Your task to perform on an android device: Open the calendar and show me this week's events? Image 0: 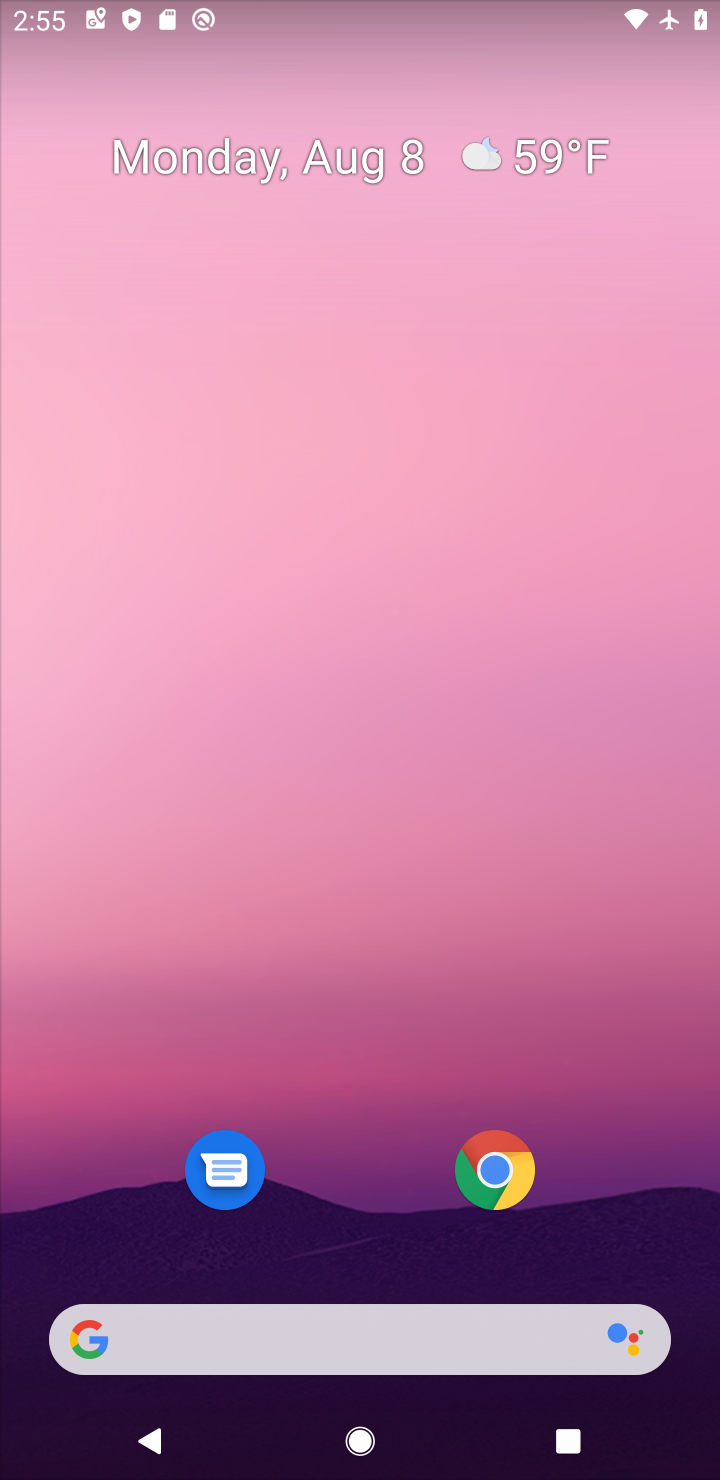
Step 0: drag from (384, 1100) to (384, 250)
Your task to perform on an android device: Open the calendar and show me this week's events? Image 1: 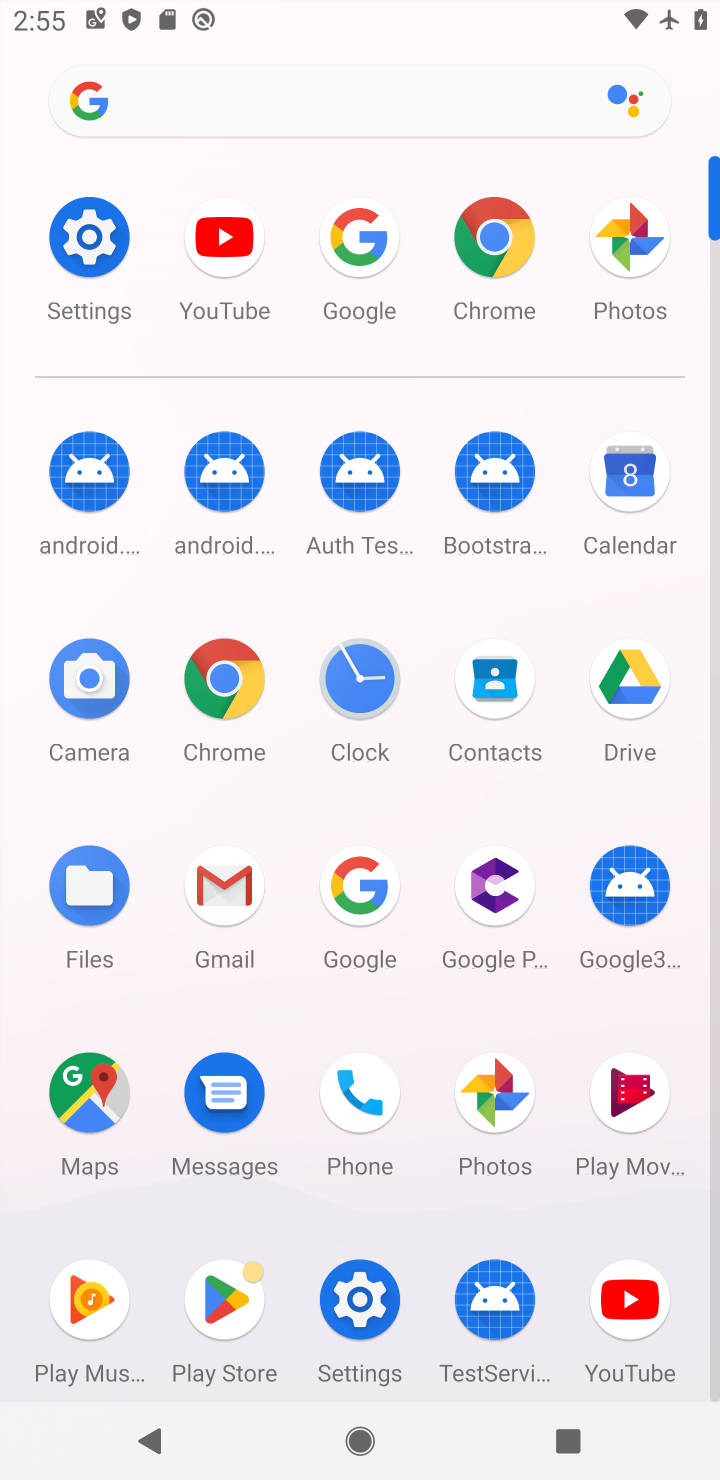
Step 1: click (609, 501)
Your task to perform on an android device: Open the calendar and show me this week's events? Image 2: 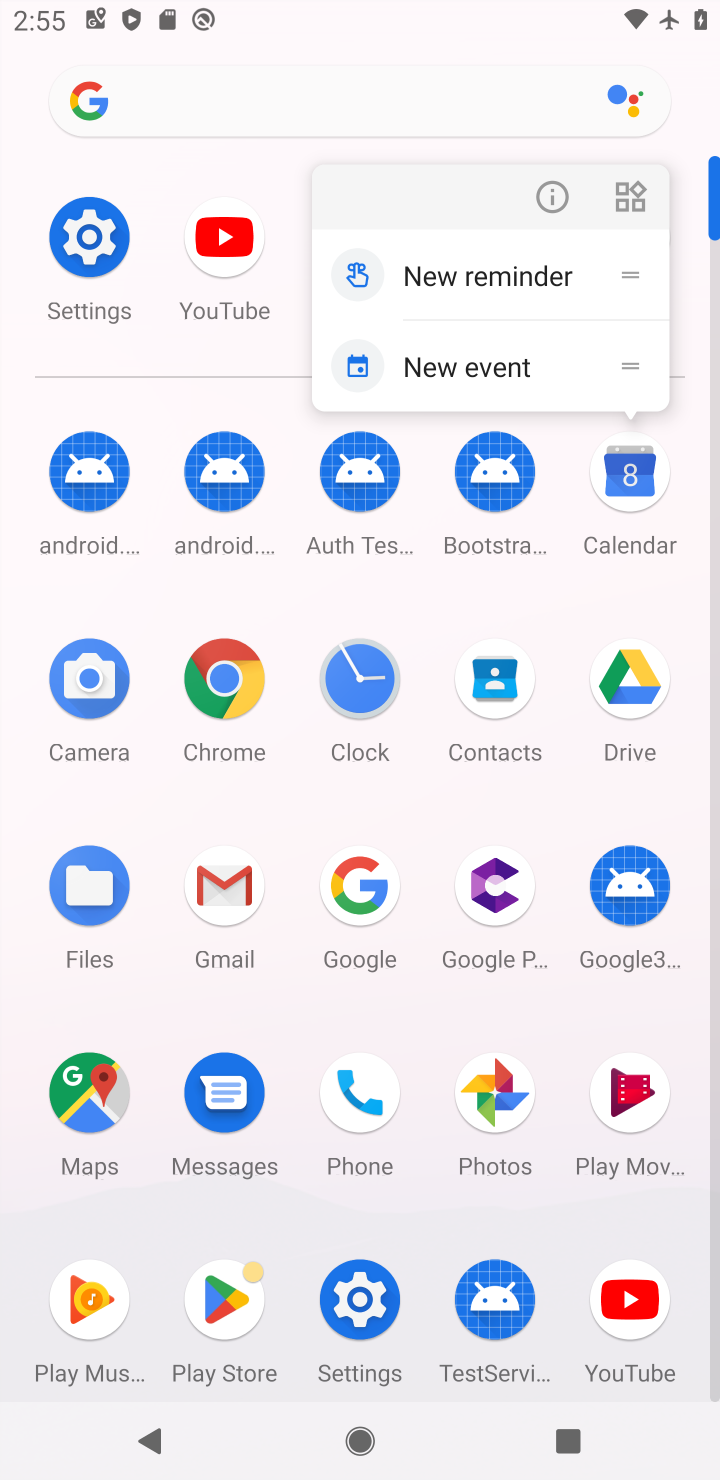
Step 2: click (648, 492)
Your task to perform on an android device: Open the calendar and show me this week's events? Image 3: 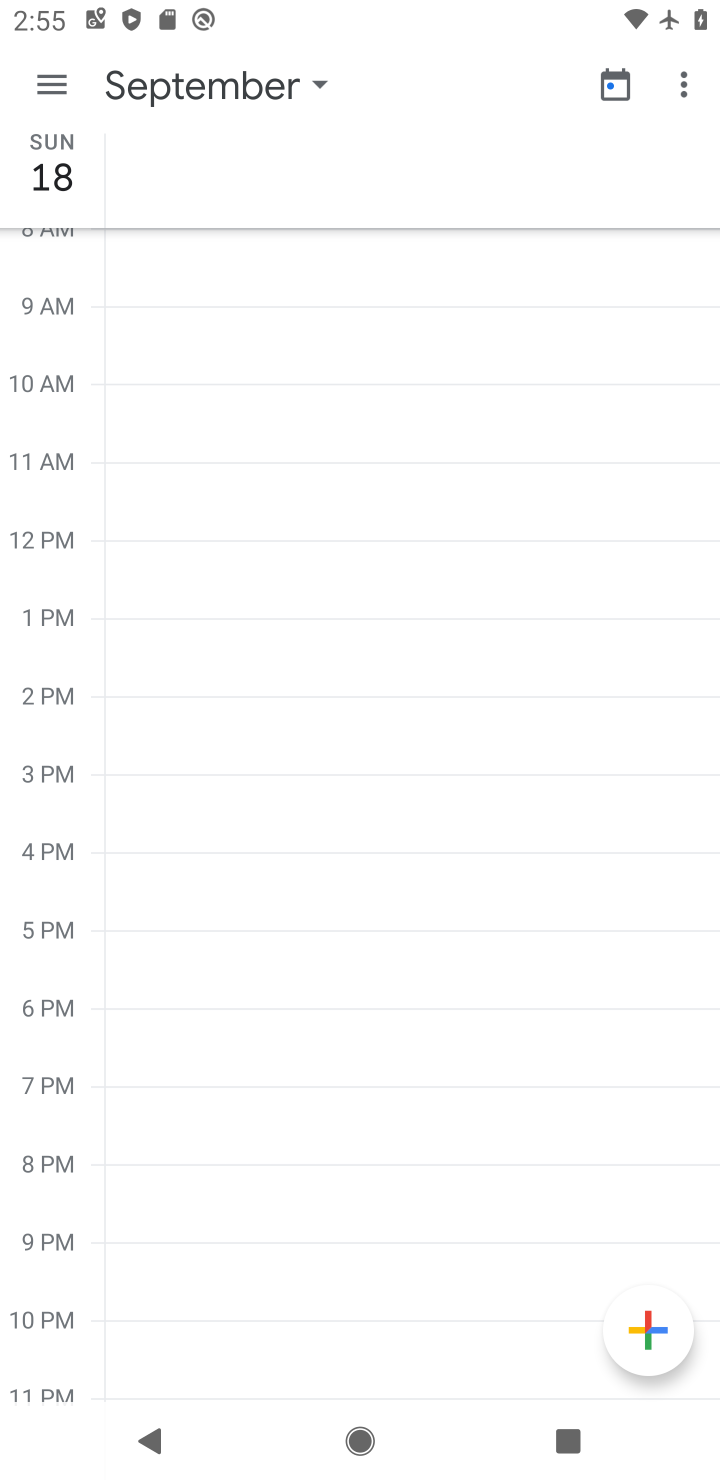
Step 3: click (265, 111)
Your task to perform on an android device: Open the calendar and show me this week's events? Image 4: 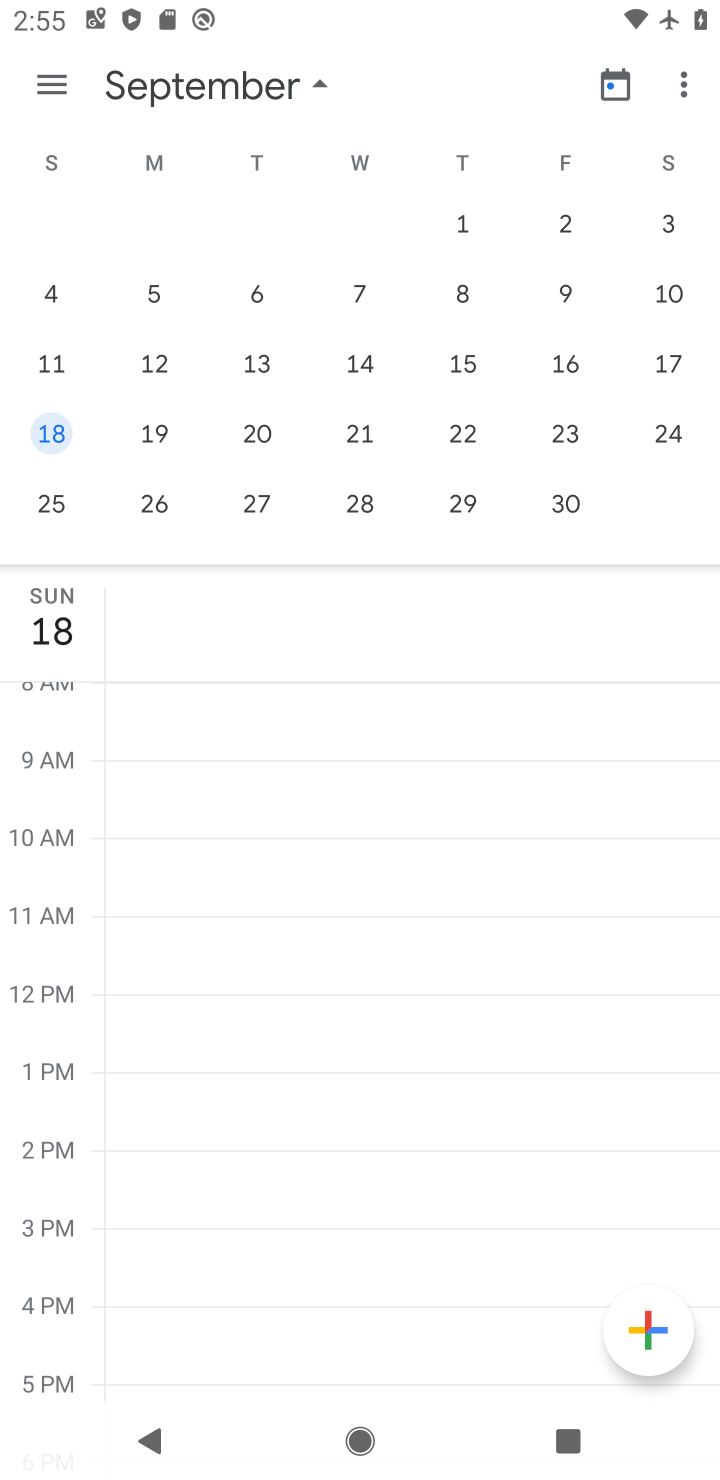
Step 4: drag from (147, 361) to (678, 359)
Your task to perform on an android device: Open the calendar and show me this week's events? Image 5: 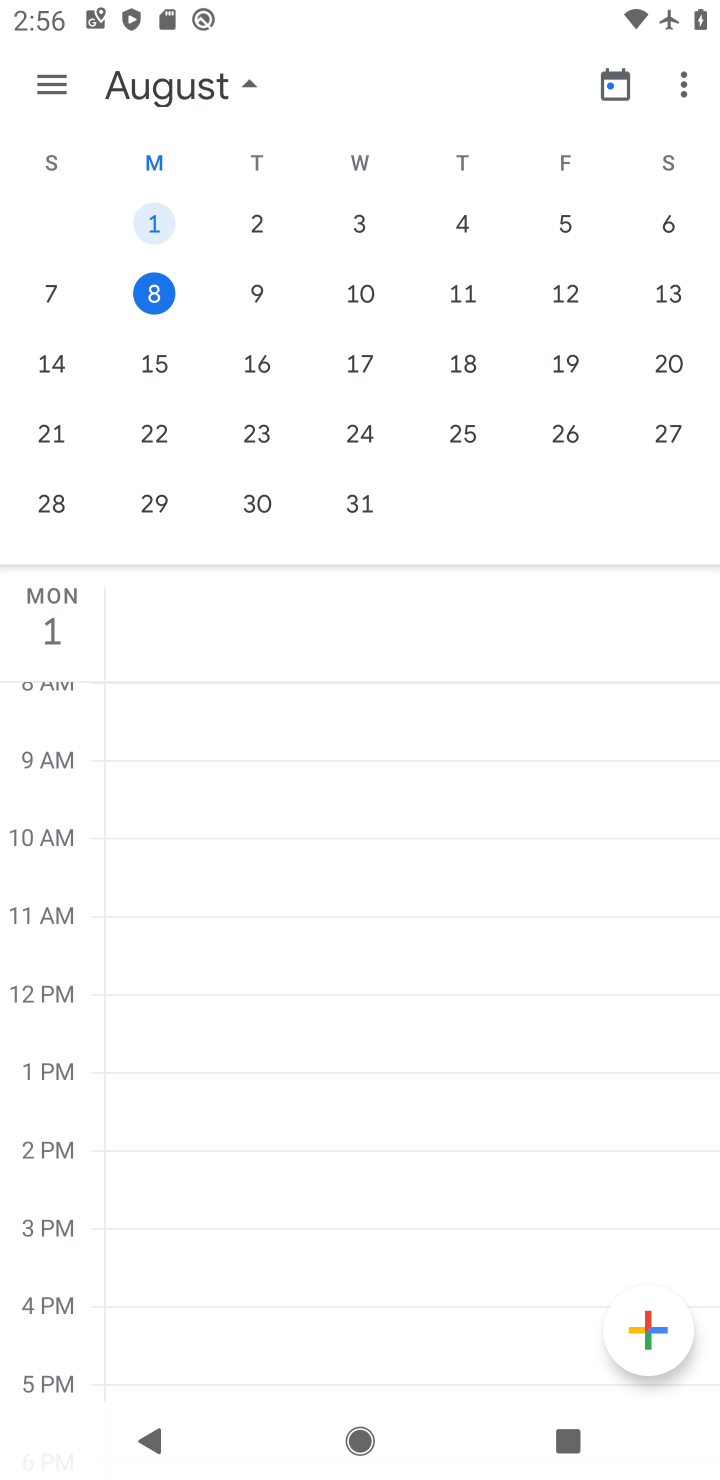
Step 5: click (252, 307)
Your task to perform on an android device: Open the calendar and show me this week's events? Image 6: 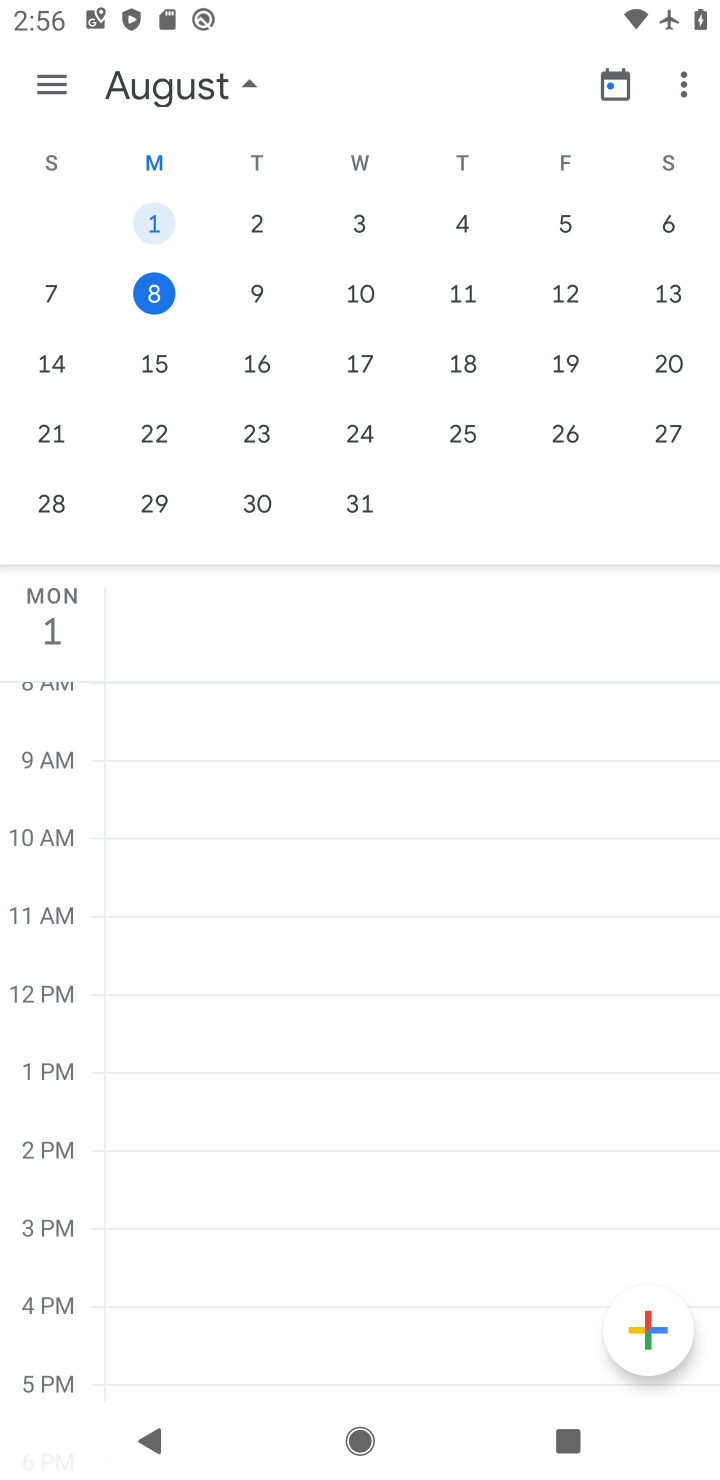
Step 6: click (351, 315)
Your task to perform on an android device: Open the calendar and show me this week's events? Image 7: 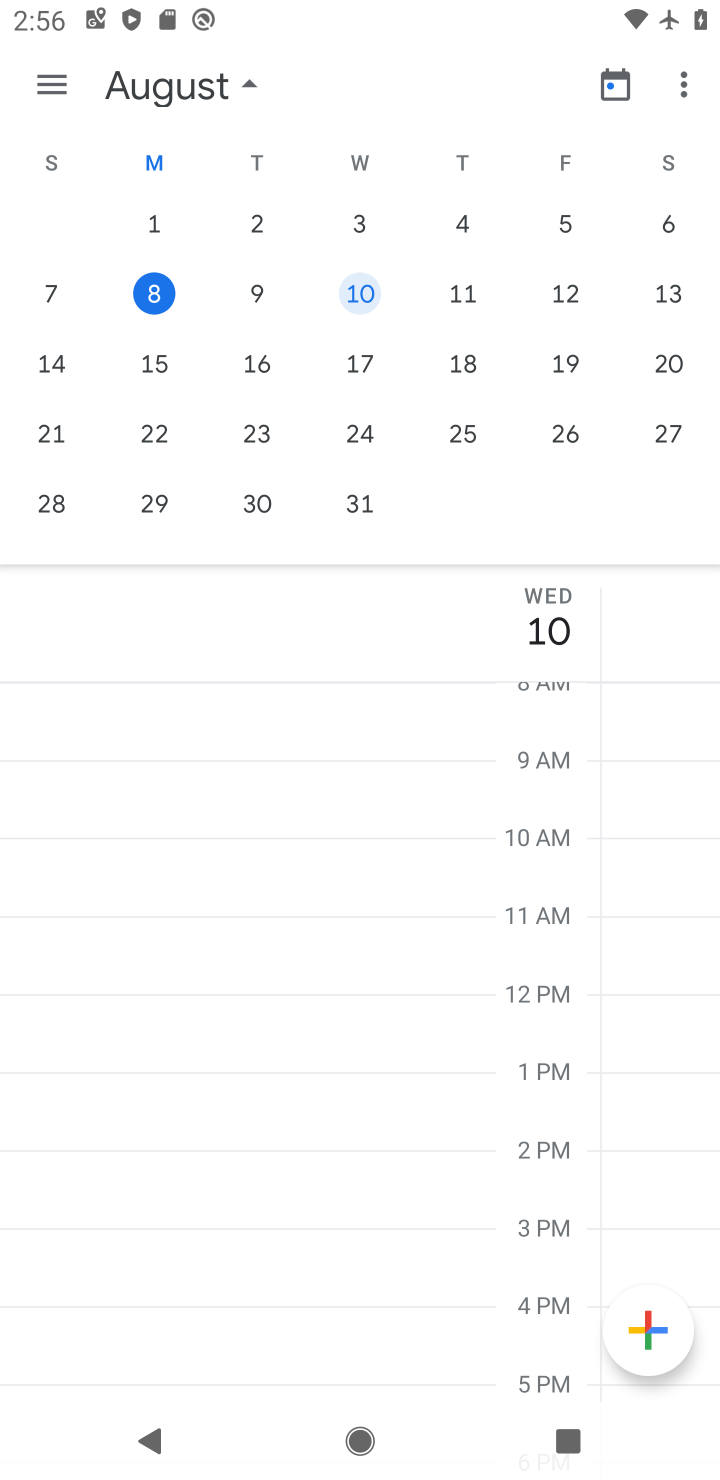
Step 7: task complete